Your task to perform on an android device: Open Reddit.com Image 0: 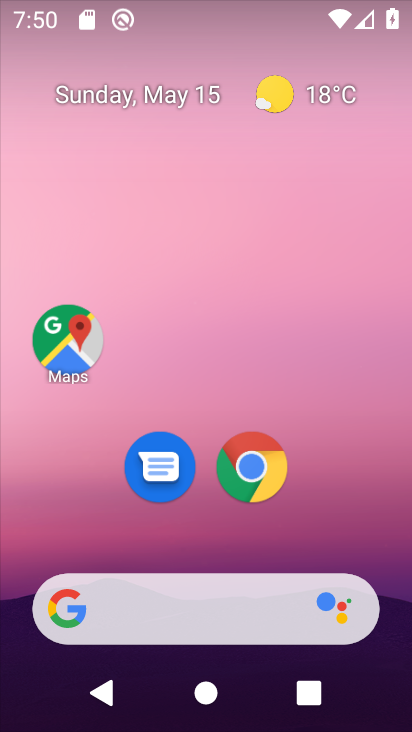
Step 0: click (263, 461)
Your task to perform on an android device: Open Reddit.com Image 1: 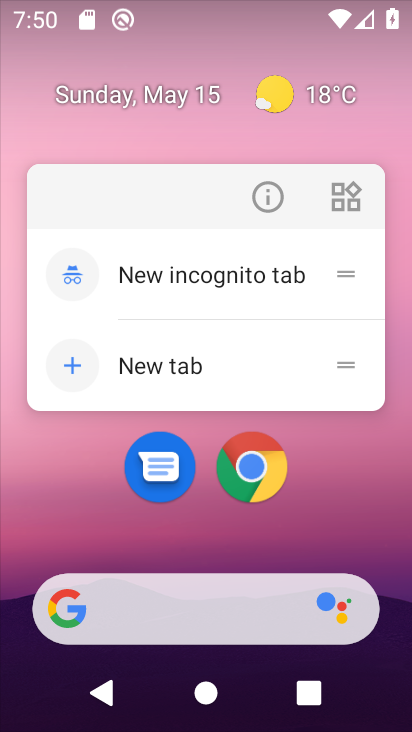
Step 1: click (260, 456)
Your task to perform on an android device: Open Reddit.com Image 2: 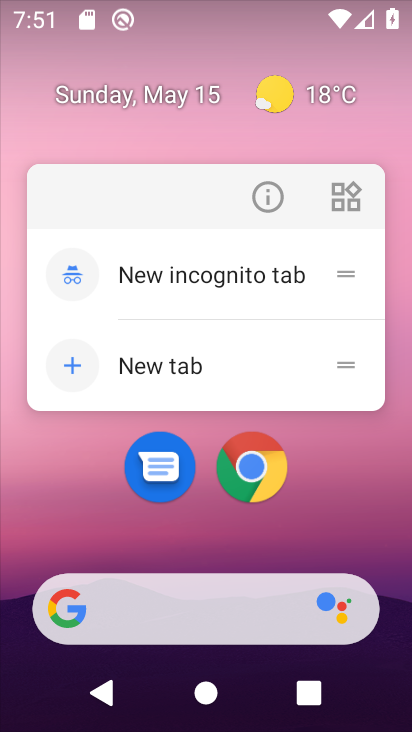
Step 2: click (252, 461)
Your task to perform on an android device: Open Reddit.com Image 3: 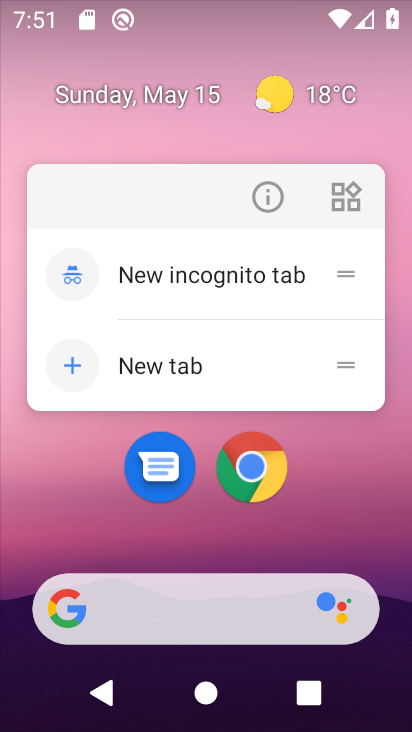
Step 3: click (250, 461)
Your task to perform on an android device: Open Reddit.com Image 4: 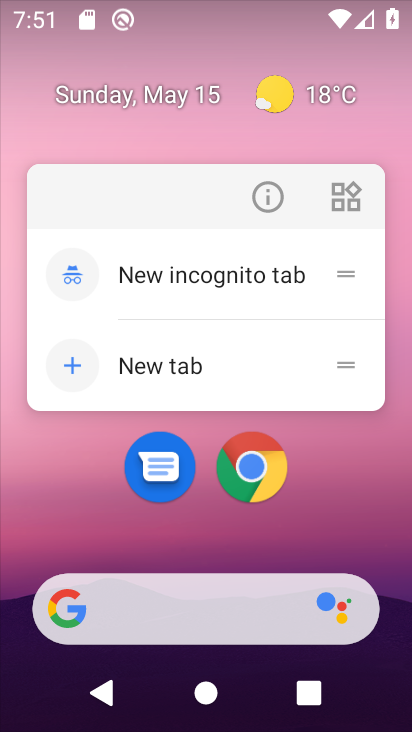
Step 4: click (253, 456)
Your task to perform on an android device: Open Reddit.com Image 5: 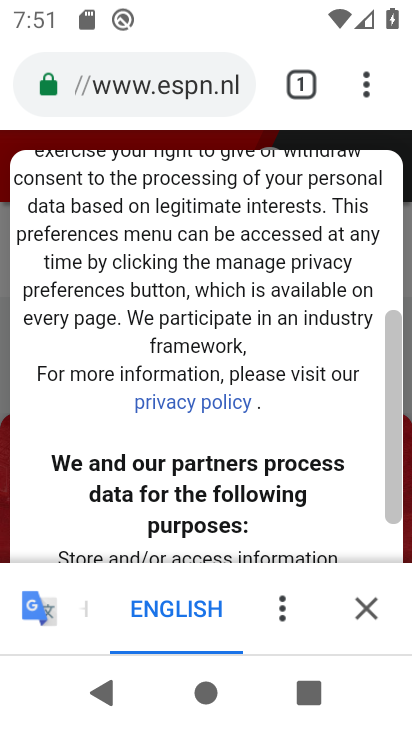
Step 5: click (168, 89)
Your task to perform on an android device: Open Reddit.com Image 6: 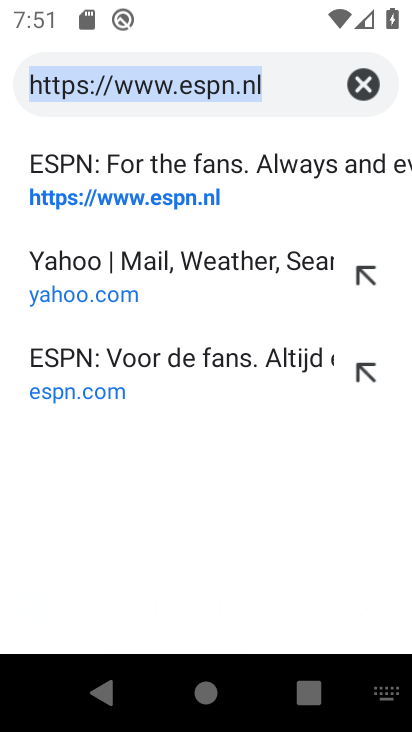
Step 6: type "Reddit.com"
Your task to perform on an android device: Open Reddit.com Image 7: 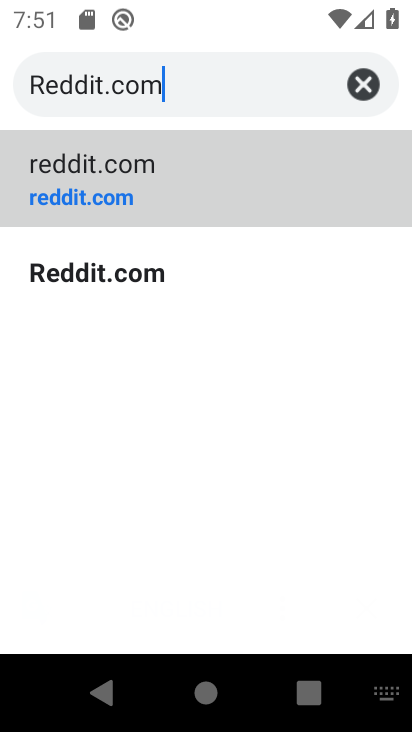
Step 7: click (79, 181)
Your task to perform on an android device: Open Reddit.com Image 8: 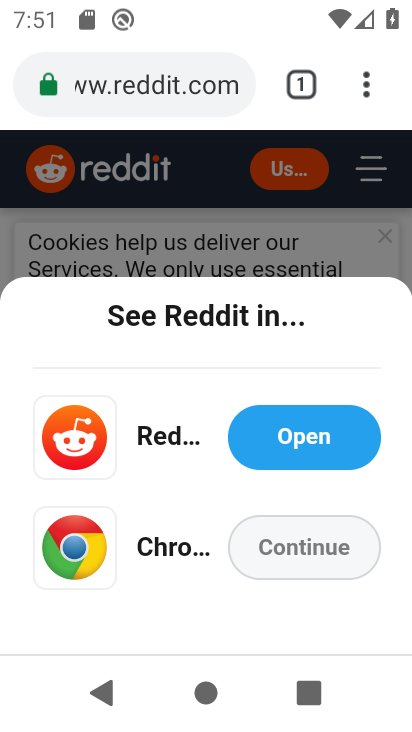
Step 8: task complete